Your task to perform on an android device: When is my next meeting? Image 0: 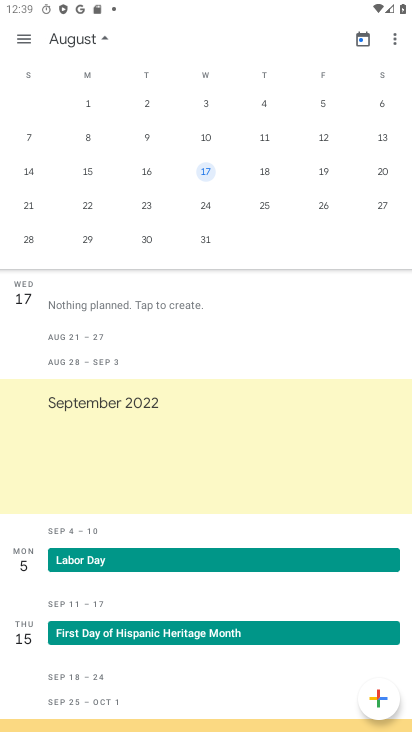
Step 0: press home button
Your task to perform on an android device: When is my next meeting? Image 1: 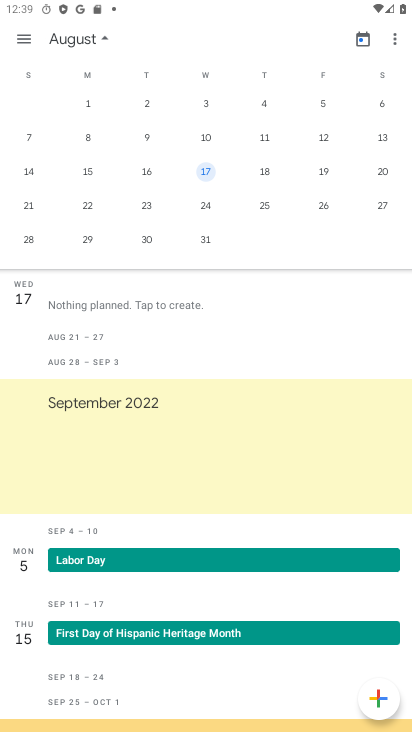
Step 1: press home button
Your task to perform on an android device: When is my next meeting? Image 2: 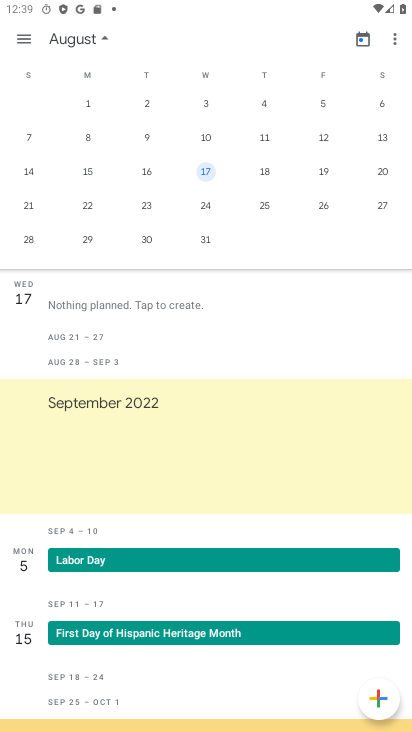
Step 2: click (153, 224)
Your task to perform on an android device: When is my next meeting? Image 3: 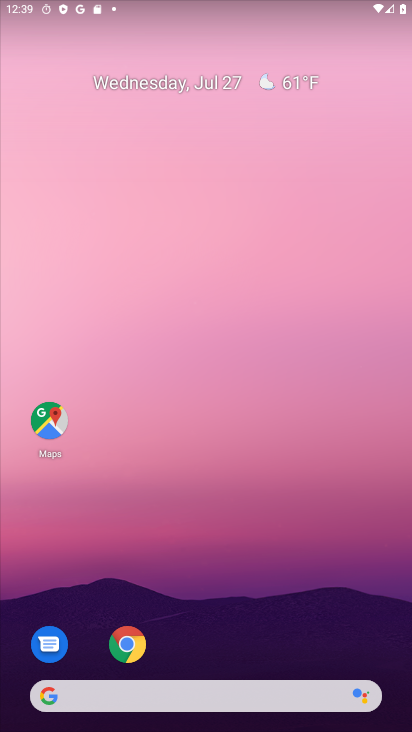
Step 3: drag from (187, 683) to (278, 218)
Your task to perform on an android device: When is my next meeting? Image 4: 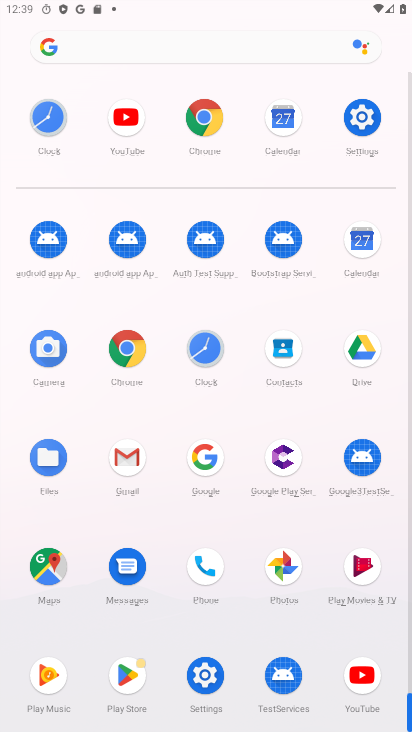
Step 4: click (365, 237)
Your task to perform on an android device: When is my next meeting? Image 5: 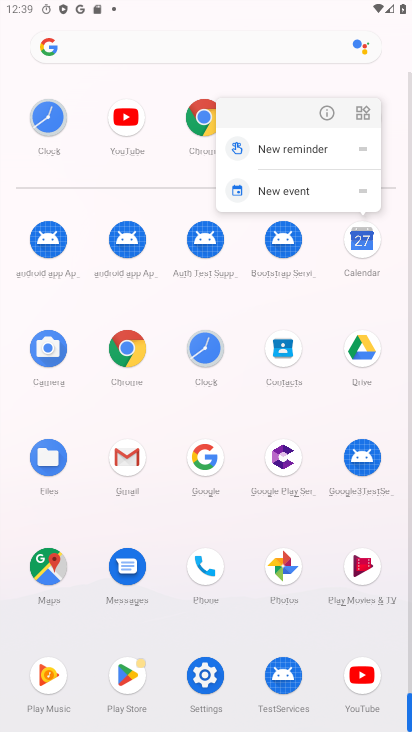
Step 5: click (326, 107)
Your task to perform on an android device: When is my next meeting? Image 6: 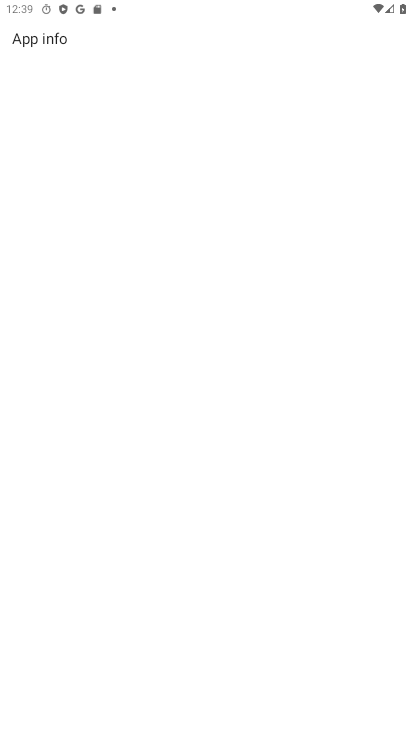
Step 6: drag from (208, 570) to (257, 255)
Your task to perform on an android device: When is my next meeting? Image 7: 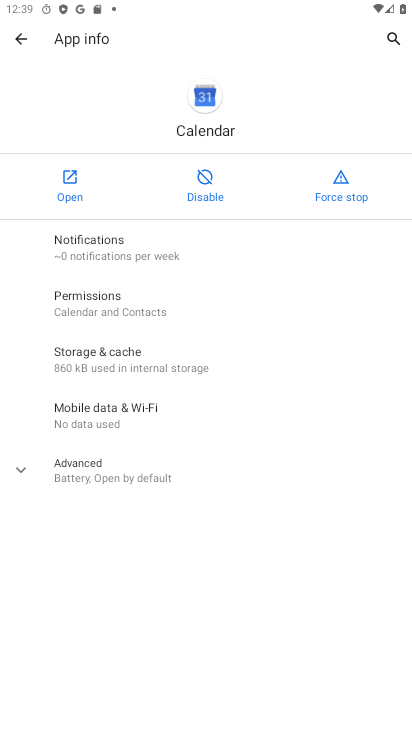
Step 7: click (68, 187)
Your task to perform on an android device: When is my next meeting? Image 8: 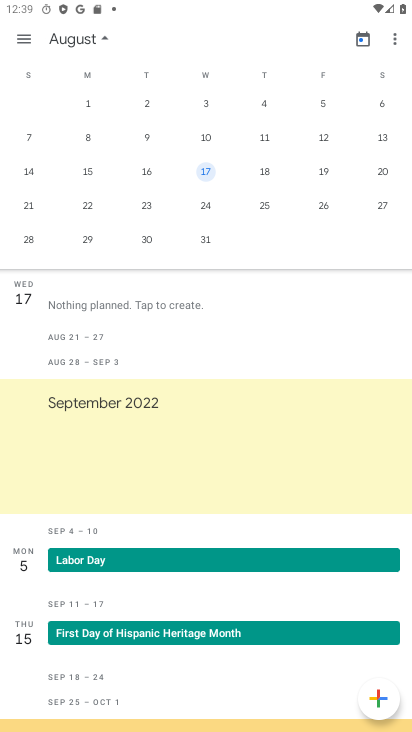
Step 8: click (348, 37)
Your task to perform on an android device: When is my next meeting? Image 9: 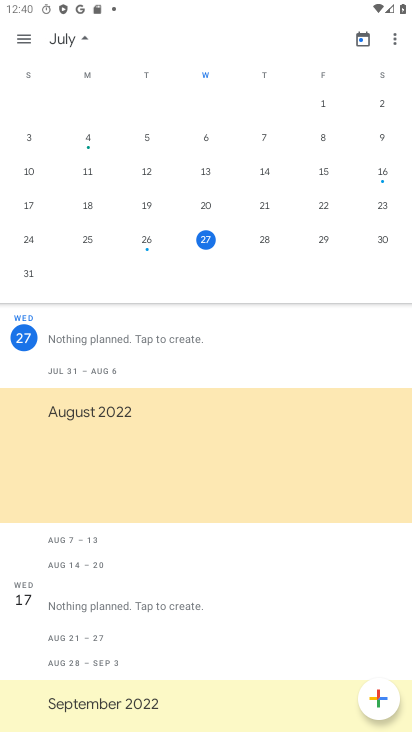
Step 9: click (208, 241)
Your task to perform on an android device: When is my next meeting? Image 10: 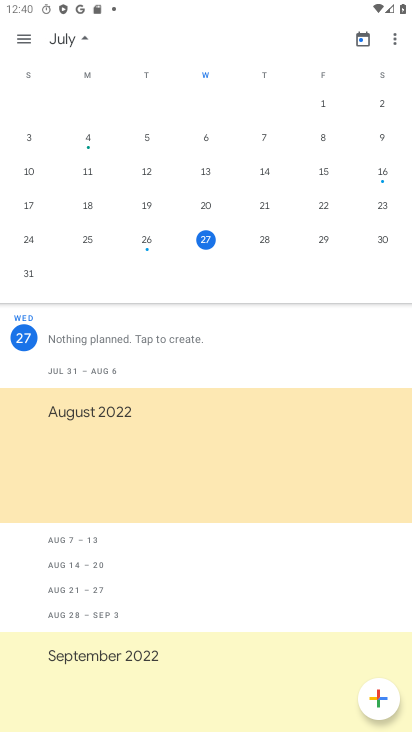
Step 10: task complete